Your task to perform on an android device: Clear the cart on amazon. Add "razer deathadder" to the cart on amazon Image 0: 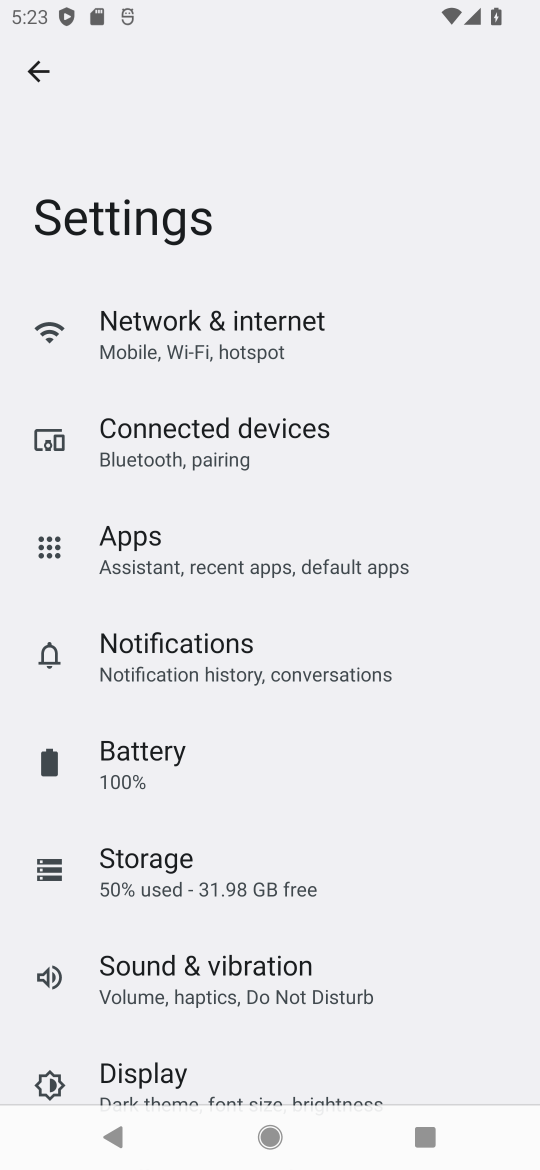
Step 0: press home button
Your task to perform on an android device: Clear the cart on amazon. Add "razer deathadder" to the cart on amazon Image 1: 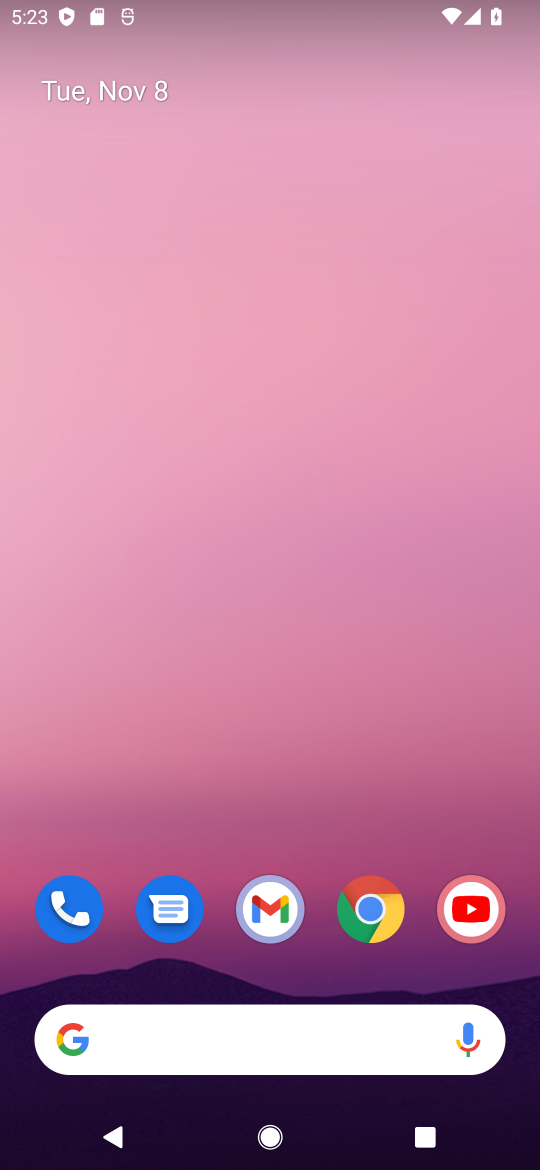
Step 1: click (373, 909)
Your task to perform on an android device: Clear the cart on amazon. Add "razer deathadder" to the cart on amazon Image 2: 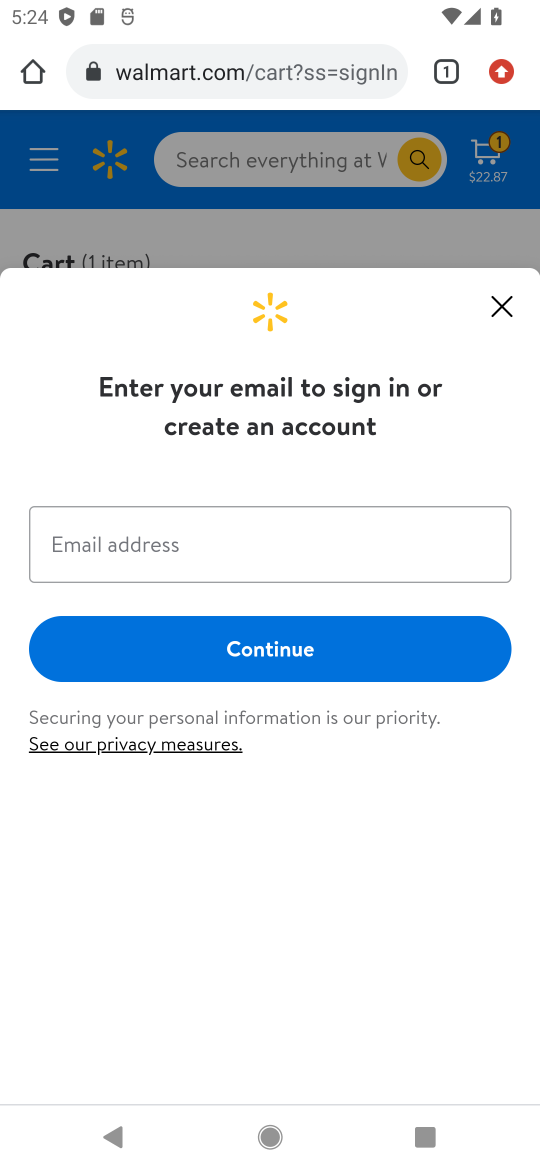
Step 2: click (333, 69)
Your task to perform on an android device: Clear the cart on amazon. Add "razer deathadder" to the cart on amazon Image 3: 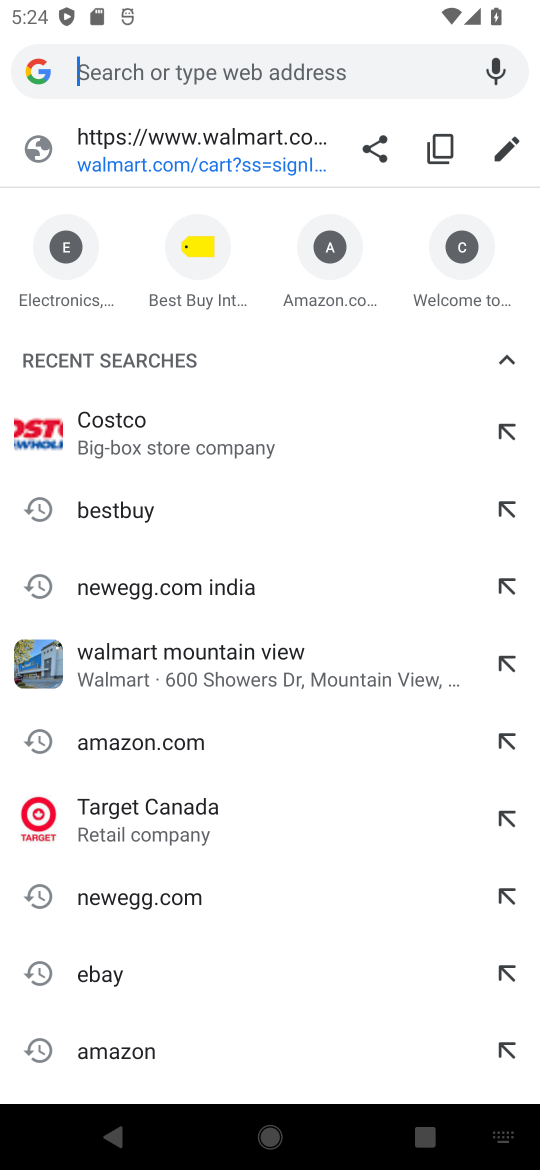
Step 3: click (128, 734)
Your task to perform on an android device: Clear the cart on amazon. Add "razer deathadder" to the cart on amazon Image 4: 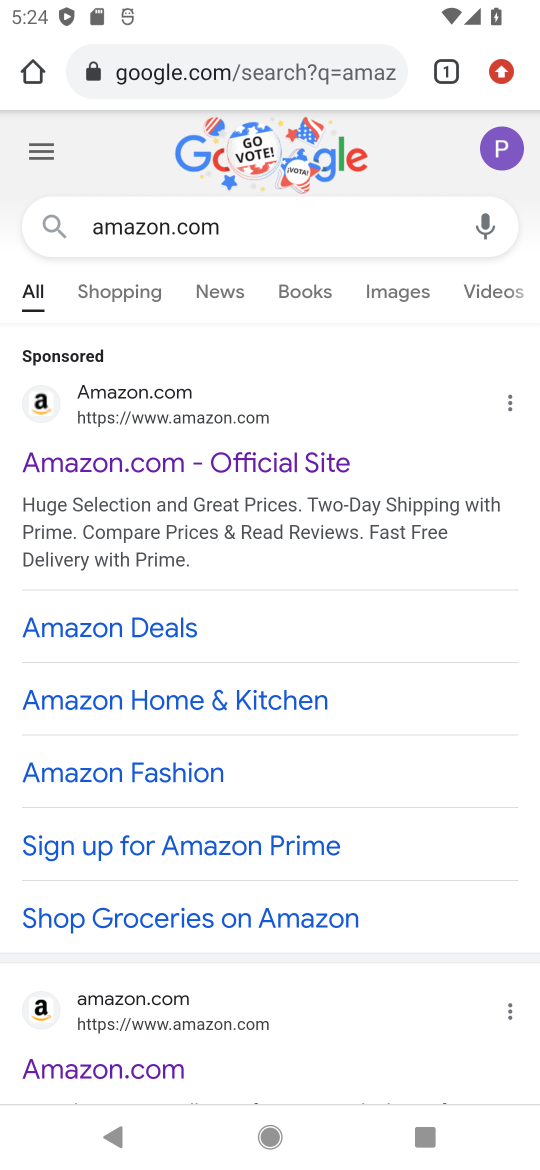
Step 4: click (162, 458)
Your task to perform on an android device: Clear the cart on amazon. Add "razer deathadder" to the cart on amazon Image 5: 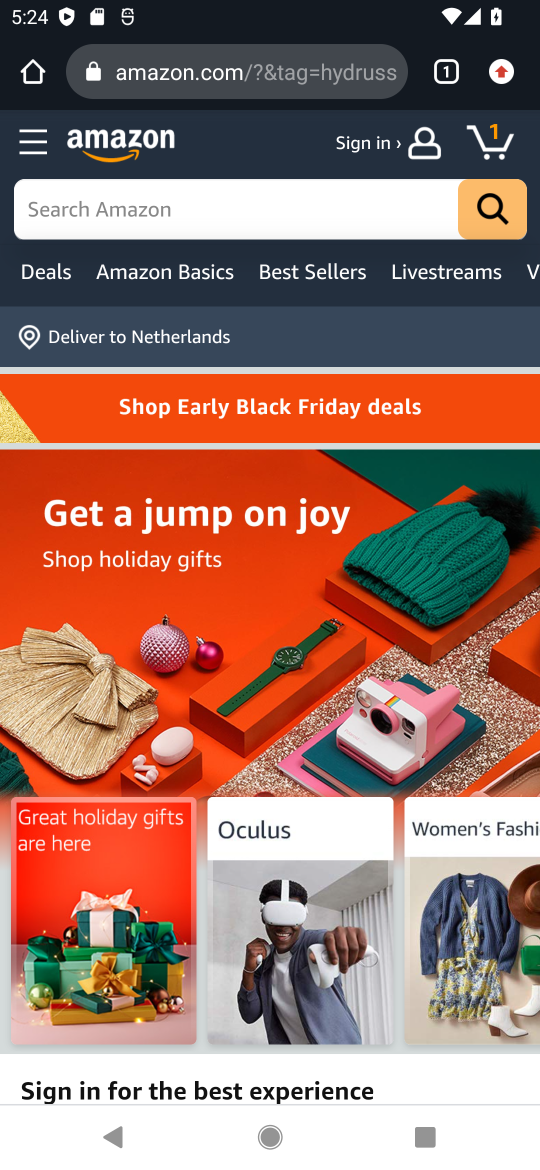
Step 5: click (502, 135)
Your task to perform on an android device: Clear the cart on amazon. Add "razer deathadder" to the cart on amazon Image 6: 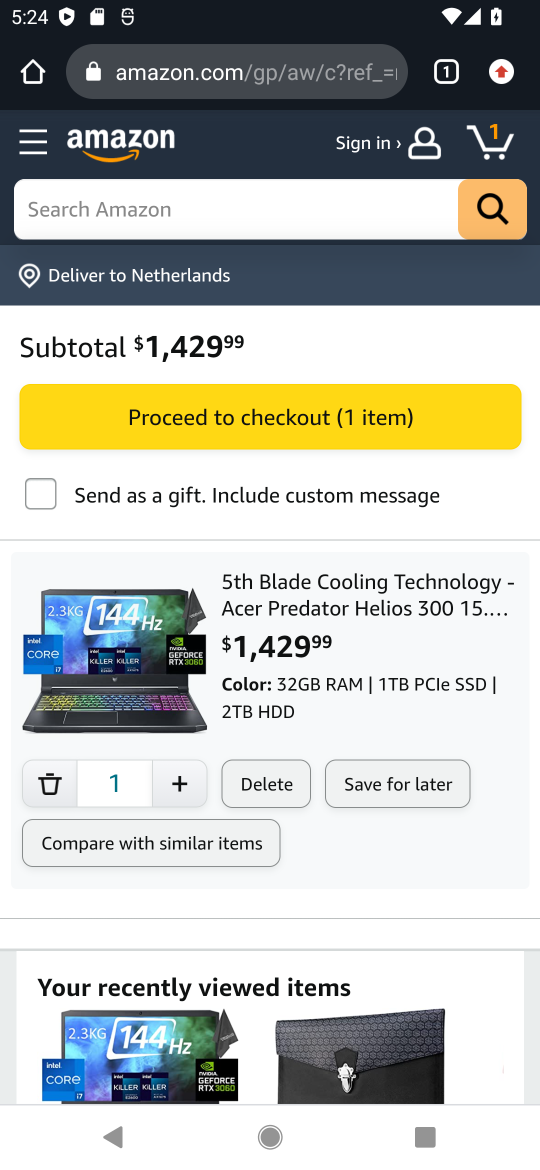
Step 6: click (279, 770)
Your task to perform on an android device: Clear the cart on amazon. Add "razer deathadder" to the cart on amazon Image 7: 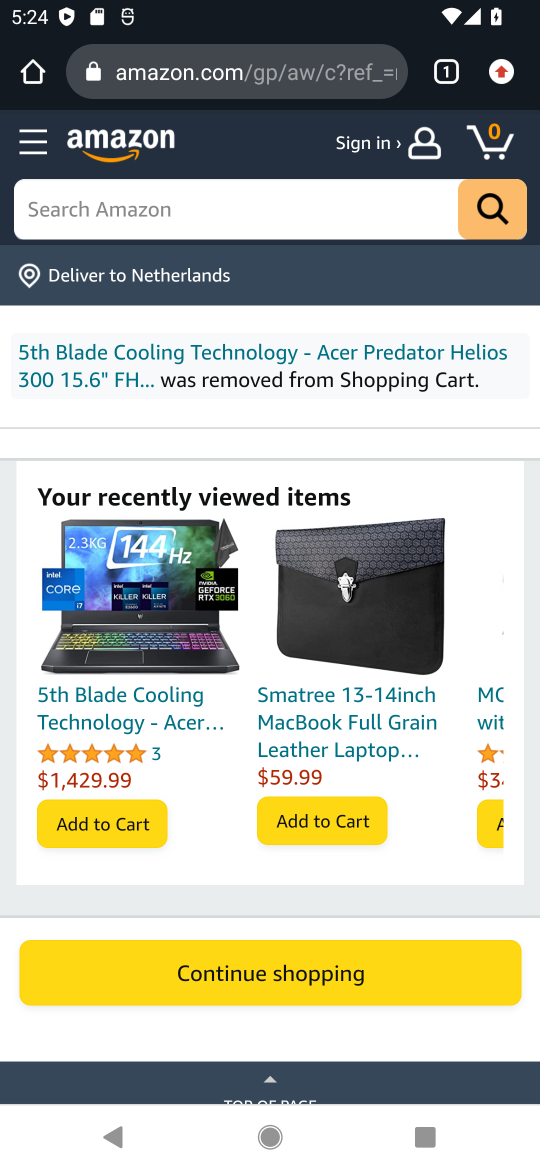
Step 7: drag from (222, 357) to (123, 763)
Your task to perform on an android device: Clear the cart on amazon. Add "razer deathadder" to the cart on amazon Image 8: 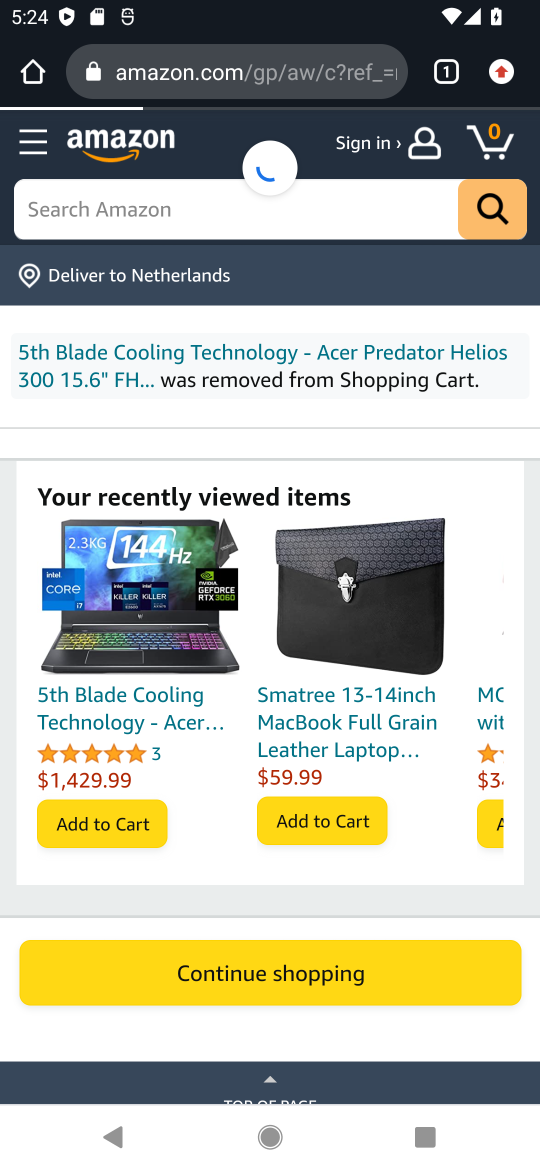
Step 8: click (217, 214)
Your task to perform on an android device: Clear the cart on amazon. Add "razer deathadder" to the cart on amazon Image 9: 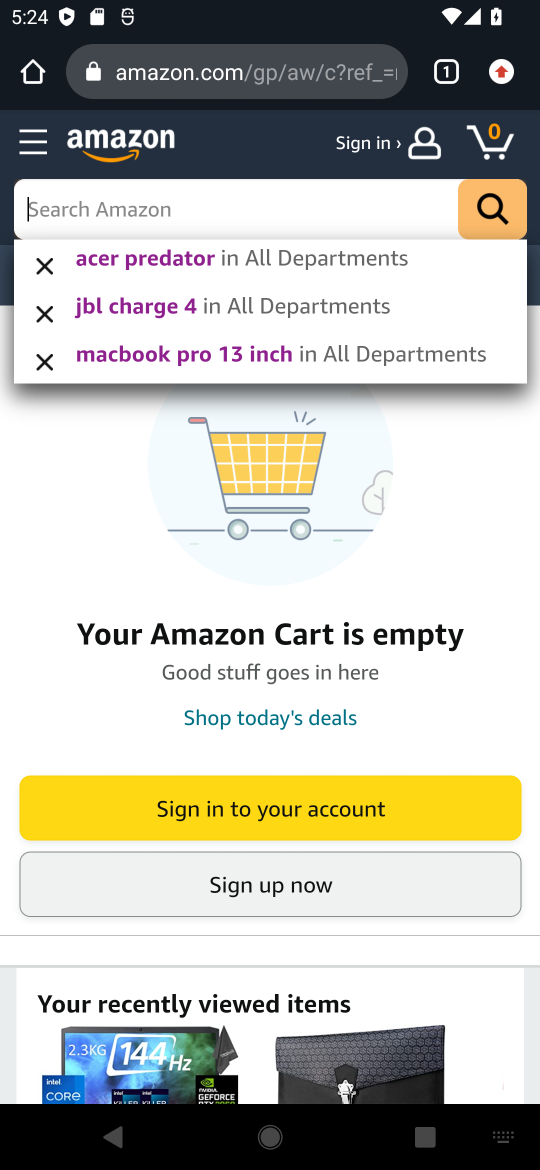
Step 9: click (217, 214)
Your task to perform on an android device: Clear the cart on amazon. Add "razer deathadder" to the cart on amazon Image 10: 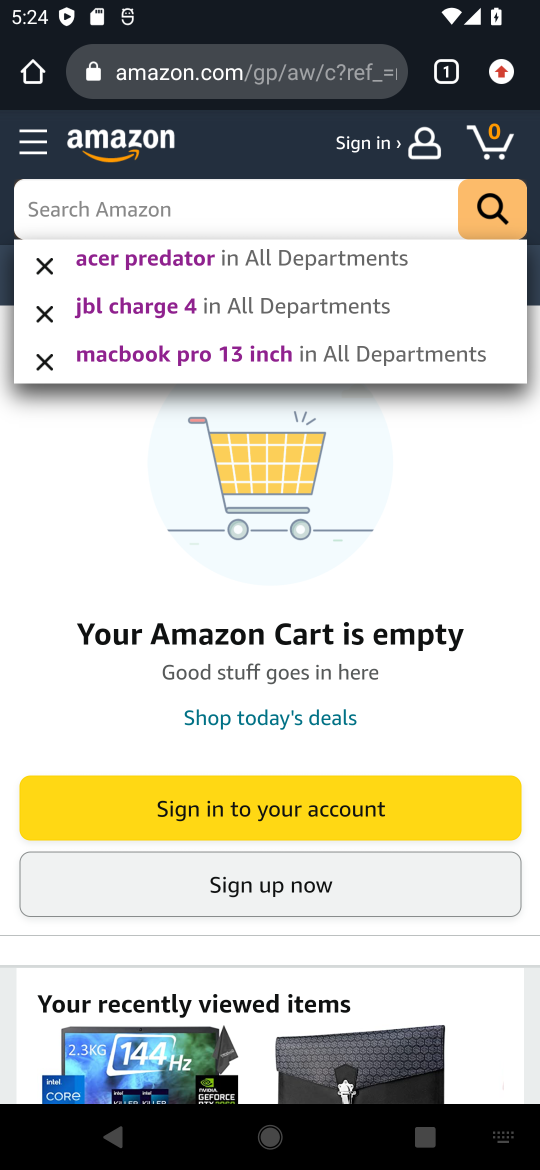
Step 10: type "razer deathadder"
Your task to perform on an android device: Clear the cart on amazon. Add "razer deathadder" to the cart on amazon Image 11: 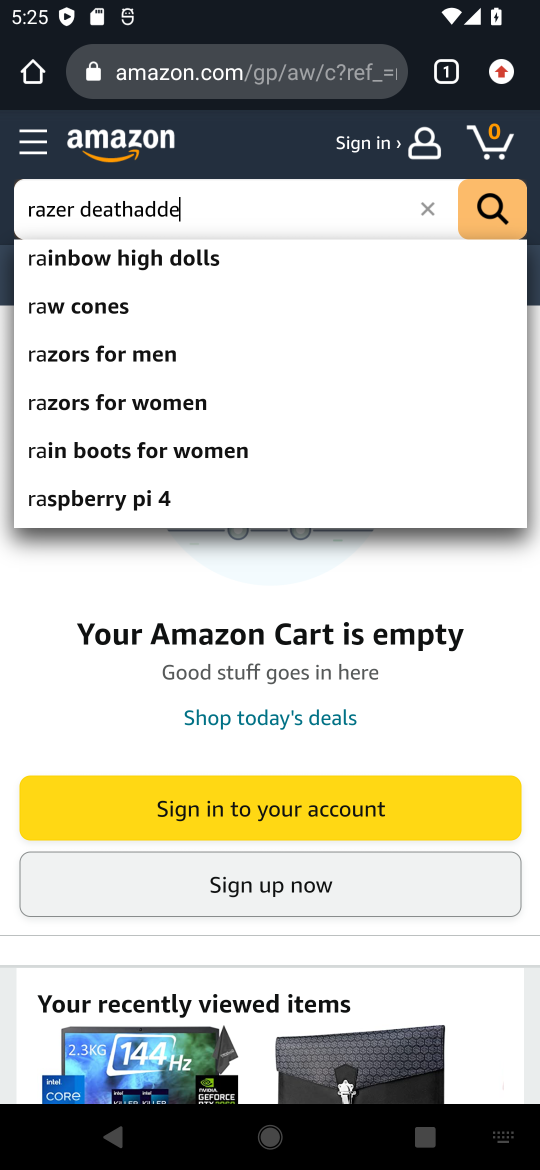
Step 11: press enter
Your task to perform on an android device: Clear the cart on amazon. Add "razer deathadder" to the cart on amazon Image 12: 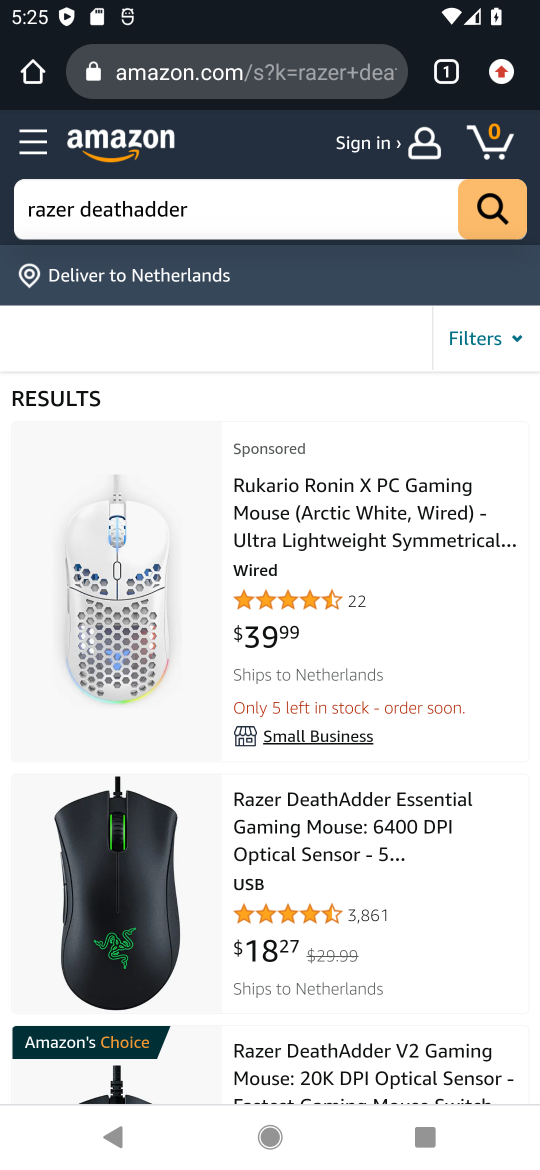
Step 12: click (355, 807)
Your task to perform on an android device: Clear the cart on amazon. Add "razer deathadder" to the cart on amazon Image 13: 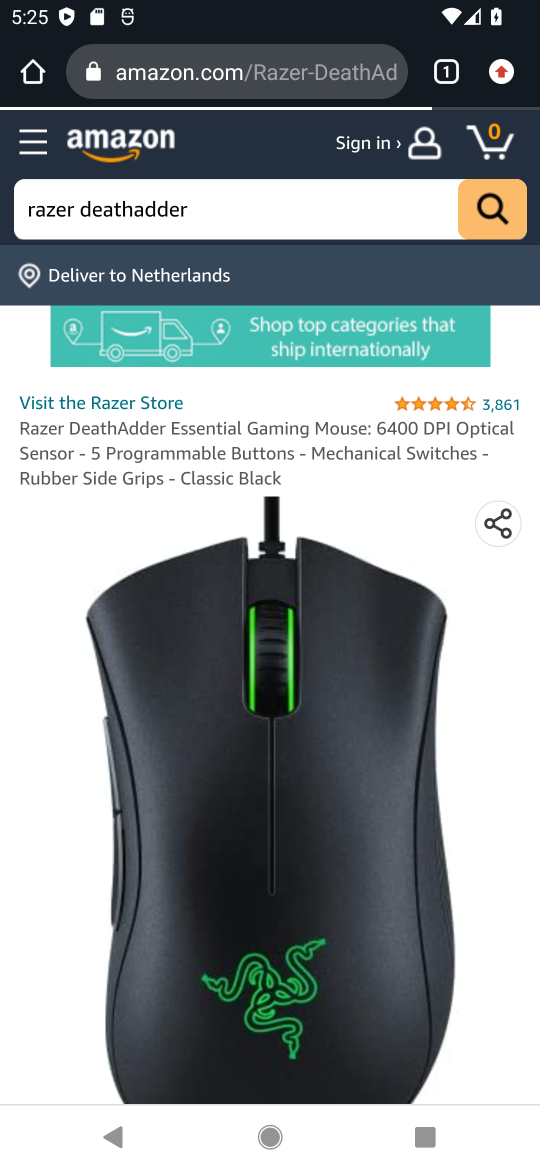
Step 13: drag from (311, 985) to (494, 603)
Your task to perform on an android device: Clear the cart on amazon. Add "razer deathadder" to the cart on amazon Image 14: 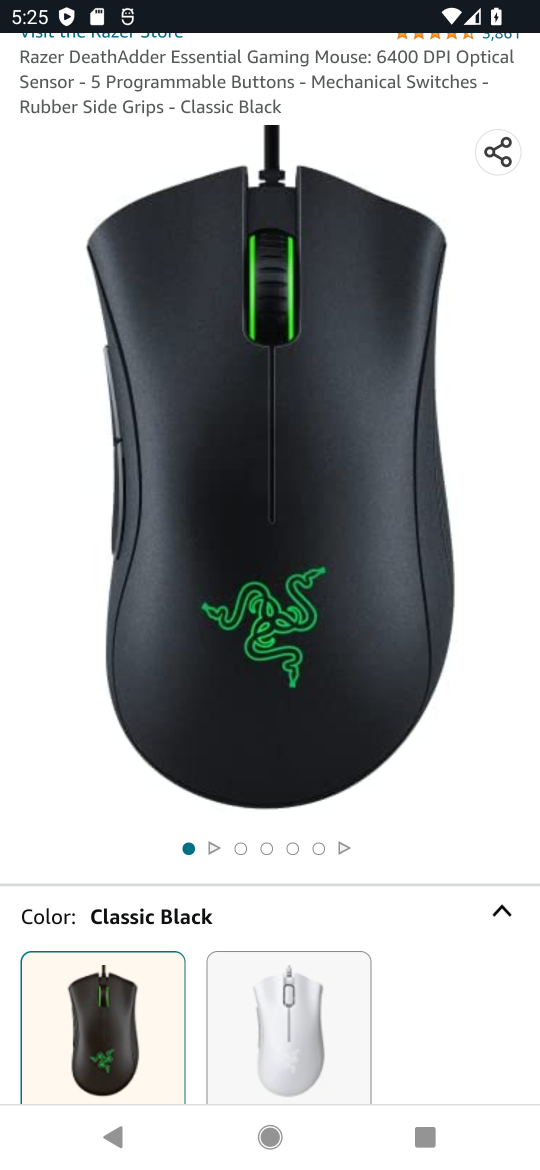
Step 14: drag from (310, 887) to (423, 397)
Your task to perform on an android device: Clear the cart on amazon. Add "razer deathadder" to the cart on amazon Image 15: 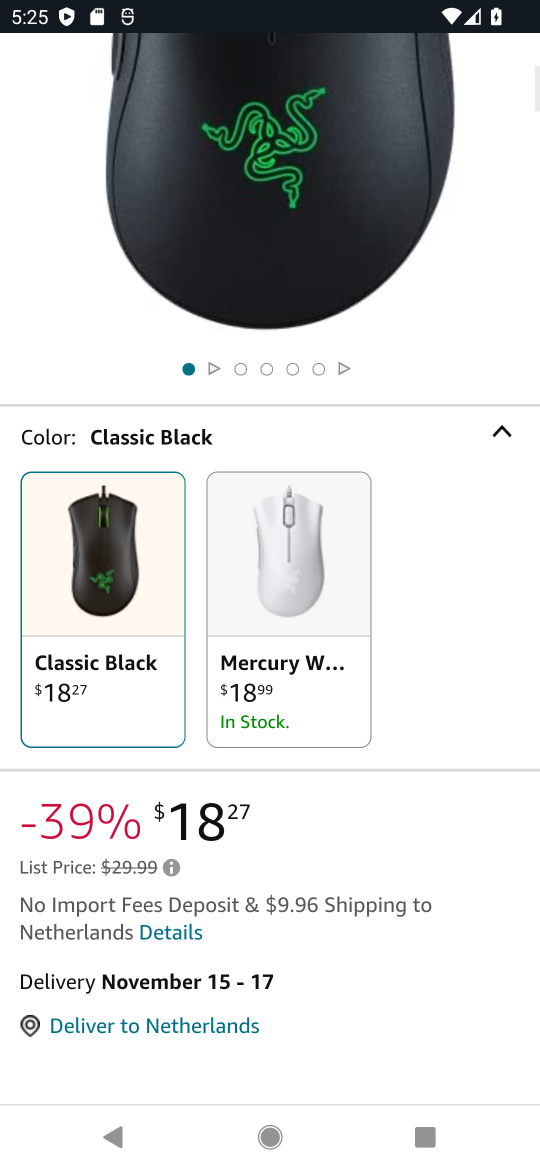
Step 15: drag from (273, 1021) to (484, 525)
Your task to perform on an android device: Clear the cart on amazon. Add "razer deathadder" to the cart on amazon Image 16: 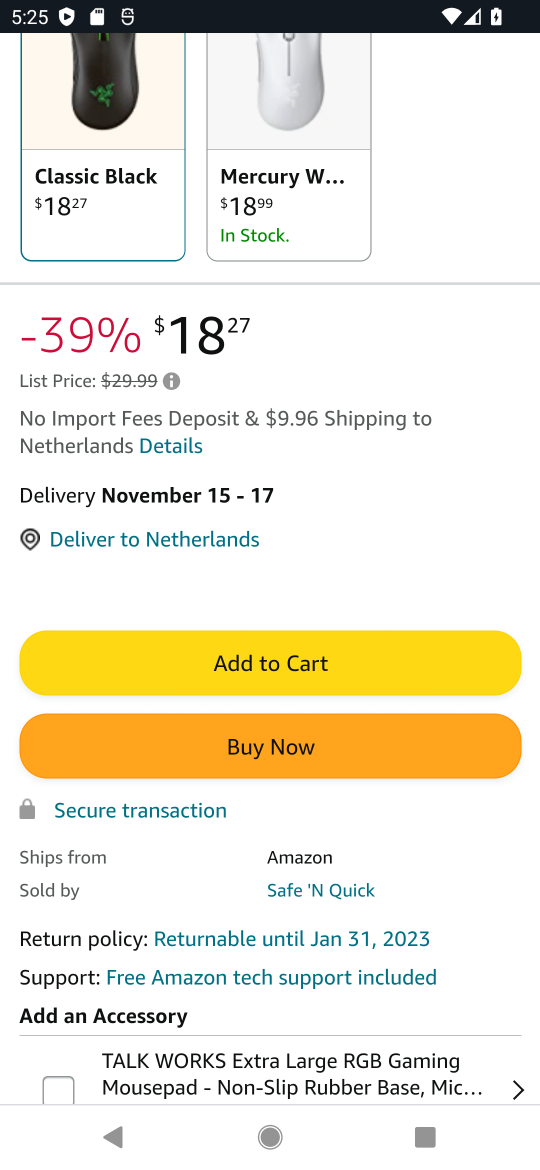
Step 16: click (314, 664)
Your task to perform on an android device: Clear the cart on amazon. Add "razer deathadder" to the cart on amazon Image 17: 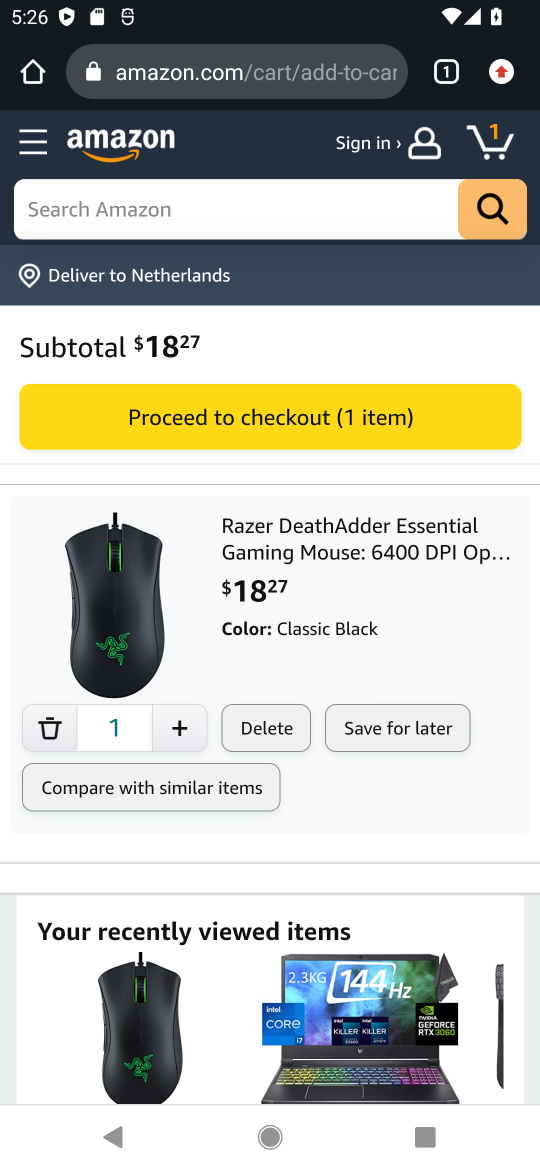
Step 17: task complete